Your task to perform on an android device: move an email to a new category in the gmail app Image 0: 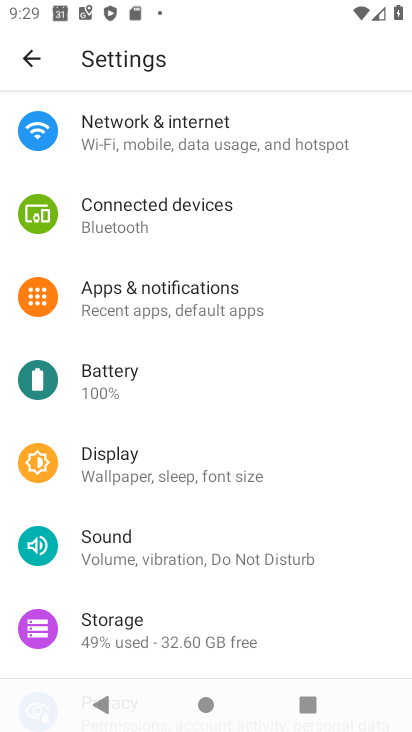
Step 0: press home button
Your task to perform on an android device: move an email to a new category in the gmail app Image 1: 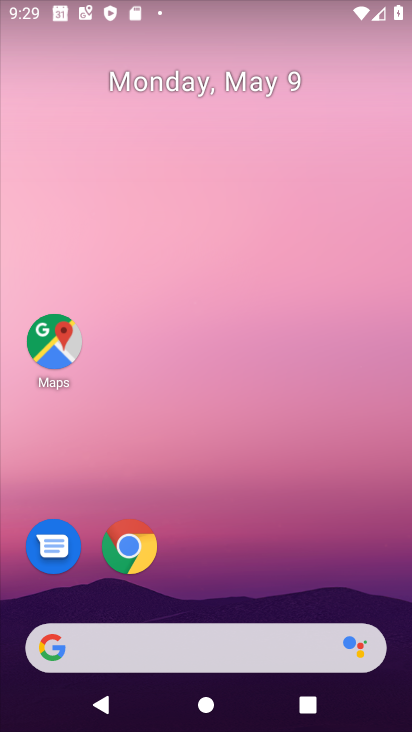
Step 1: drag from (270, 362) to (274, 168)
Your task to perform on an android device: move an email to a new category in the gmail app Image 2: 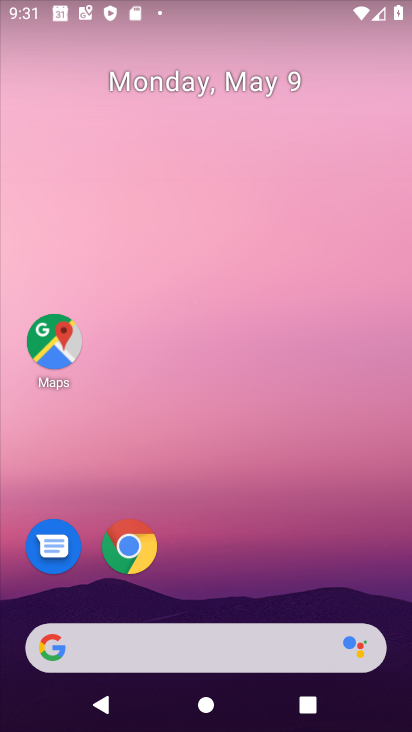
Step 2: drag from (241, 708) to (306, 79)
Your task to perform on an android device: move an email to a new category in the gmail app Image 3: 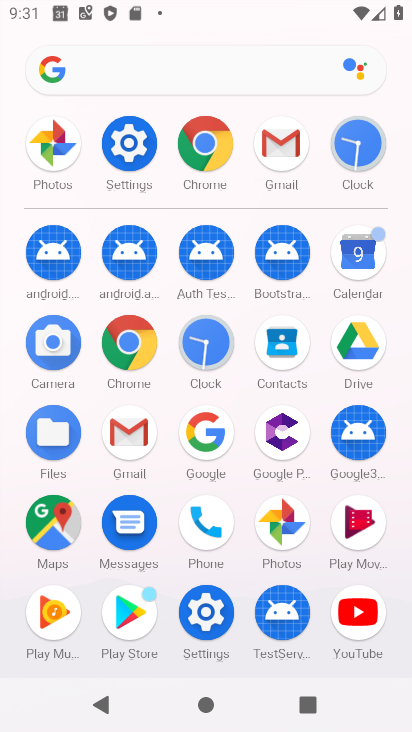
Step 3: click (283, 153)
Your task to perform on an android device: move an email to a new category in the gmail app Image 4: 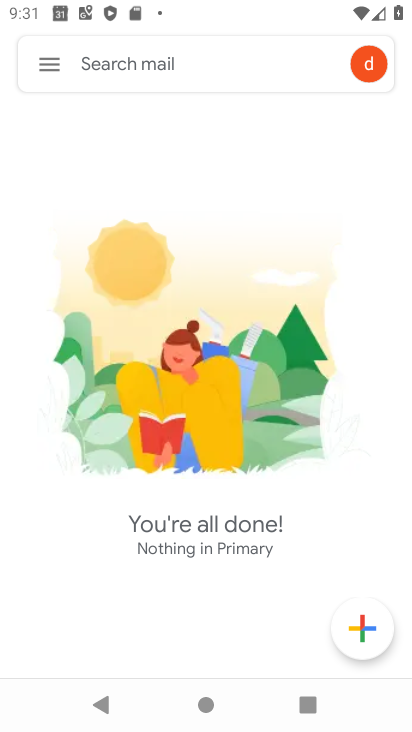
Step 4: task complete